Your task to perform on an android device: turn on data saver in the chrome app Image 0: 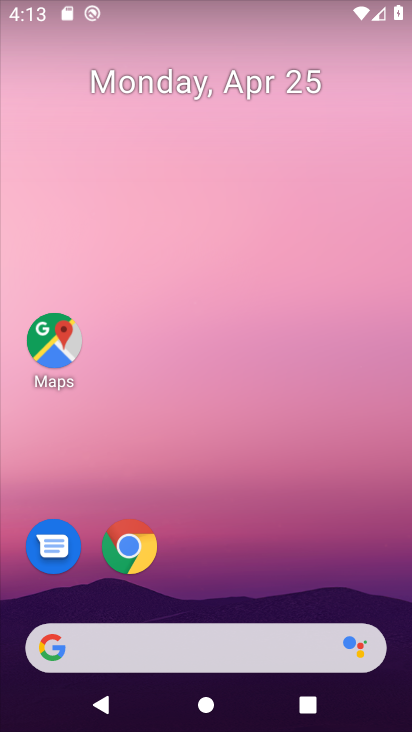
Step 0: drag from (199, 604) to (194, 18)
Your task to perform on an android device: turn on data saver in the chrome app Image 1: 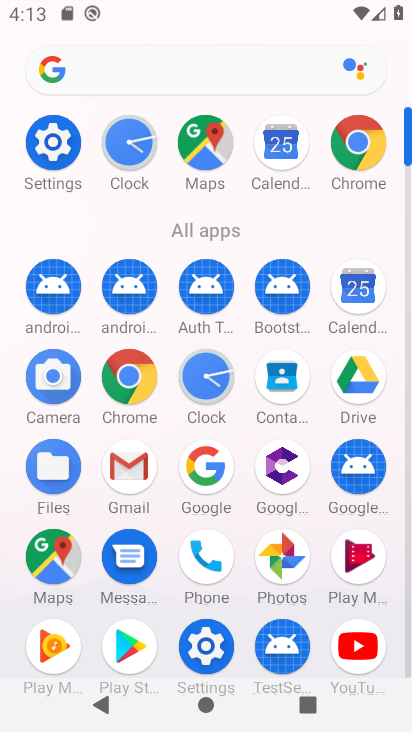
Step 1: click (368, 148)
Your task to perform on an android device: turn on data saver in the chrome app Image 2: 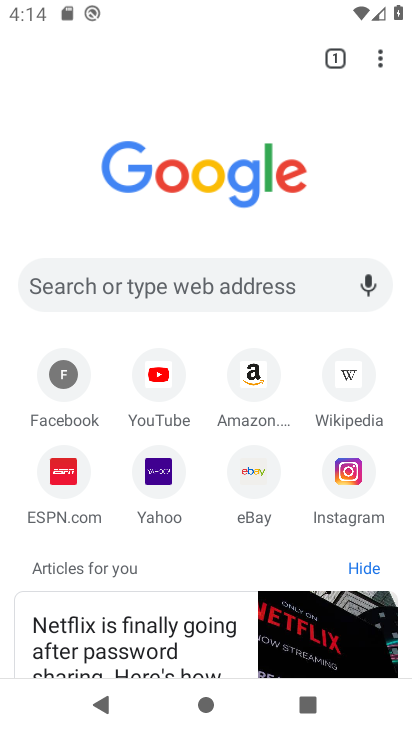
Step 2: drag from (379, 61) to (181, 502)
Your task to perform on an android device: turn on data saver in the chrome app Image 3: 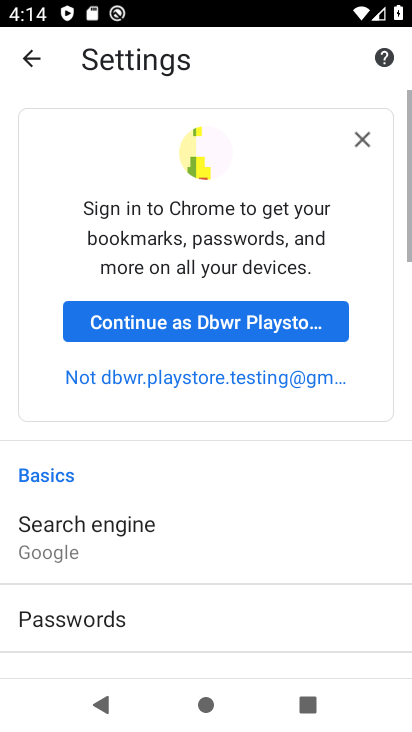
Step 3: drag from (210, 543) to (192, 73)
Your task to perform on an android device: turn on data saver in the chrome app Image 4: 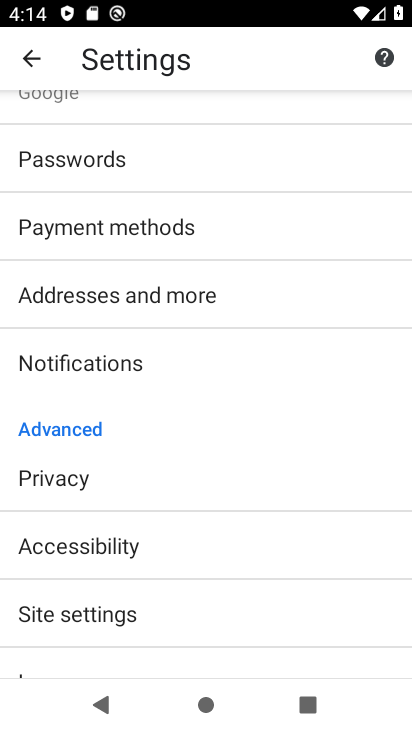
Step 4: drag from (200, 561) to (199, 165)
Your task to perform on an android device: turn on data saver in the chrome app Image 5: 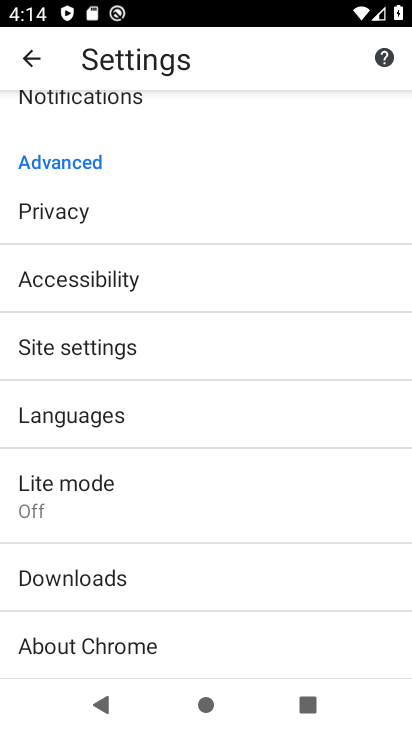
Step 5: click (73, 501)
Your task to perform on an android device: turn on data saver in the chrome app Image 6: 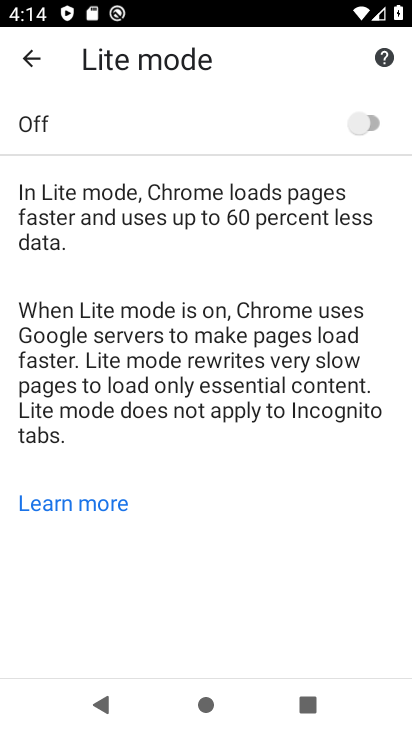
Step 6: click (376, 125)
Your task to perform on an android device: turn on data saver in the chrome app Image 7: 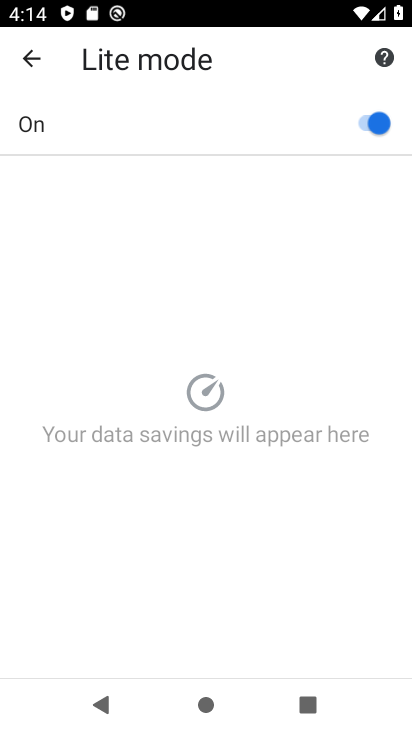
Step 7: task complete